Your task to perform on an android device: What's on my calendar tomorrow? Image 0: 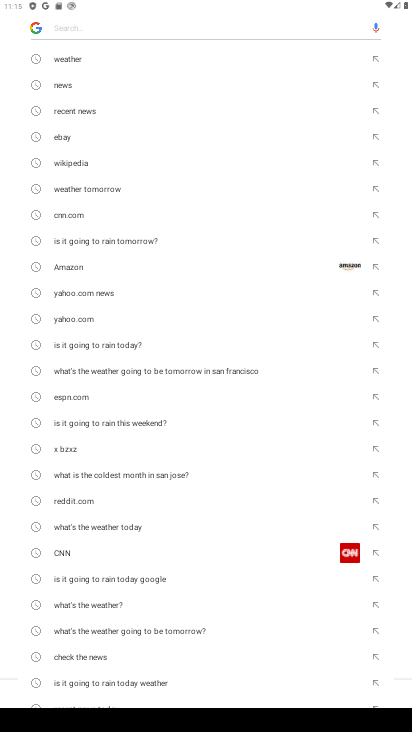
Step 0: press home button
Your task to perform on an android device: What's on my calendar tomorrow? Image 1: 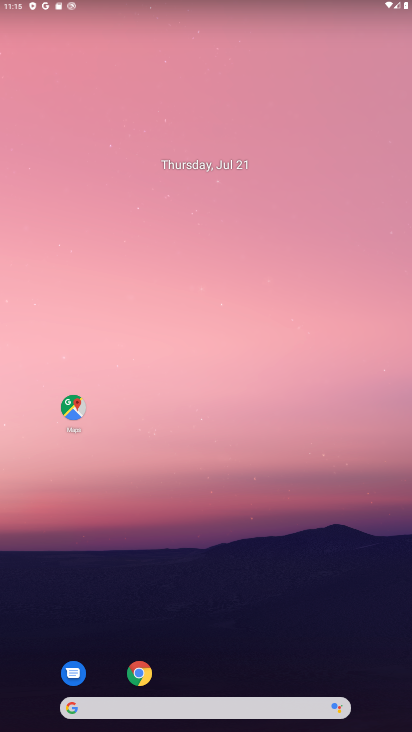
Step 1: drag from (199, 675) to (183, 71)
Your task to perform on an android device: What's on my calendar tomorrow? Image 2: 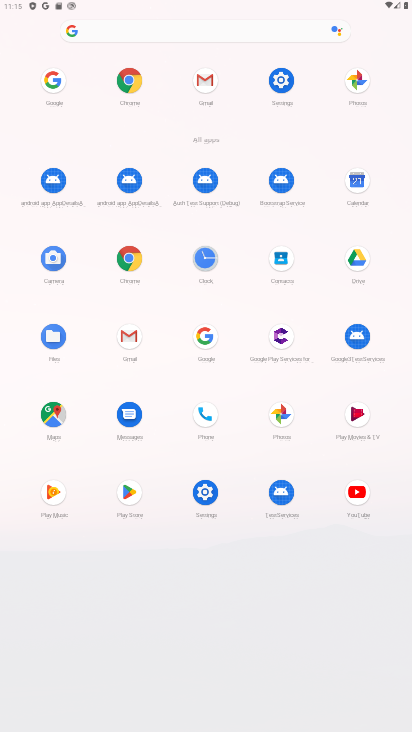
Step 2: click (357, 178)
Your task to perform on an android device: What's on my calendar tomorrow? Image 3: 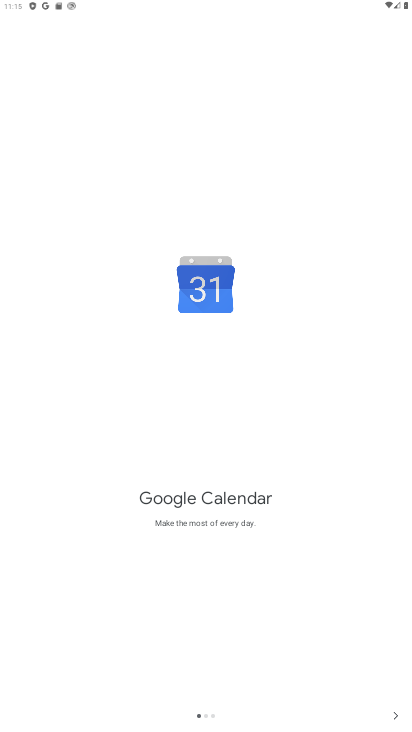
Step 3: click (393, 711)
Your task to perform on an android device: What's on my calendar tomorrow? Image 4: 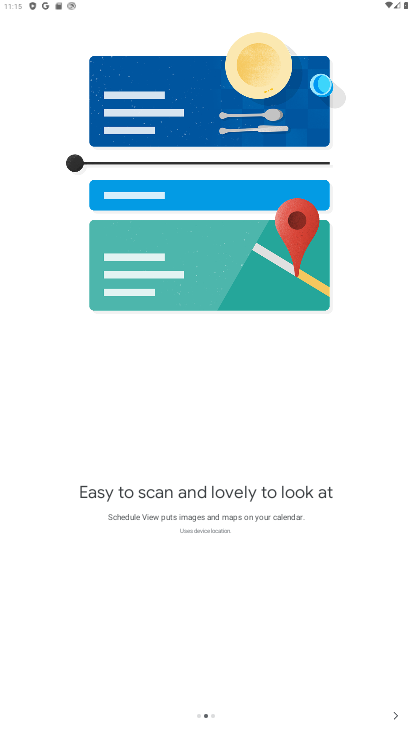
Step 4: click (393, 711)
Your task to perform on an android device: What's on my calendar tomorrow? Image 5: 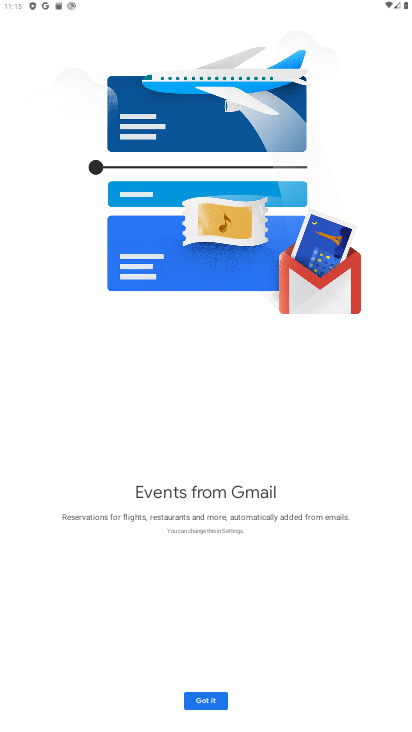
Step 5: click (203, 697)
Your task to perform on an android device: What's on my calendar tomorrow? Image 6: 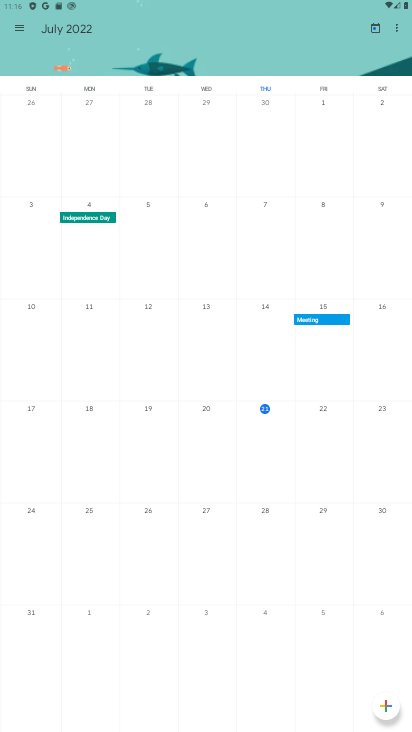
Step 6: click (24, 27)
Your task to perform on an android device: What's on my calendar tomorrow? Image 7: 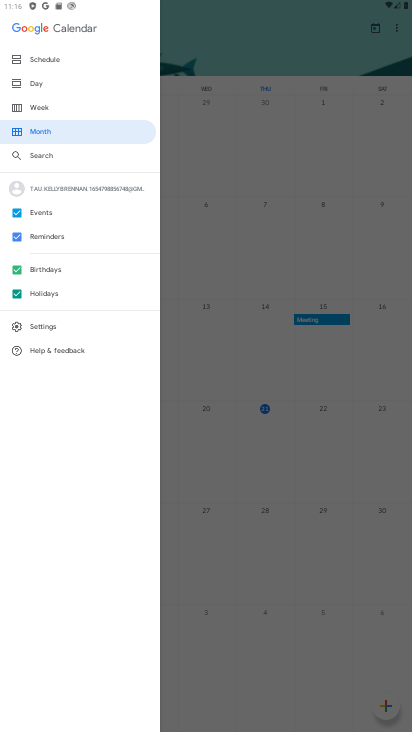
Step 7: click (39, 82)
Your task to perform on an android device: What's on my calendar tomorrow? Image 8: 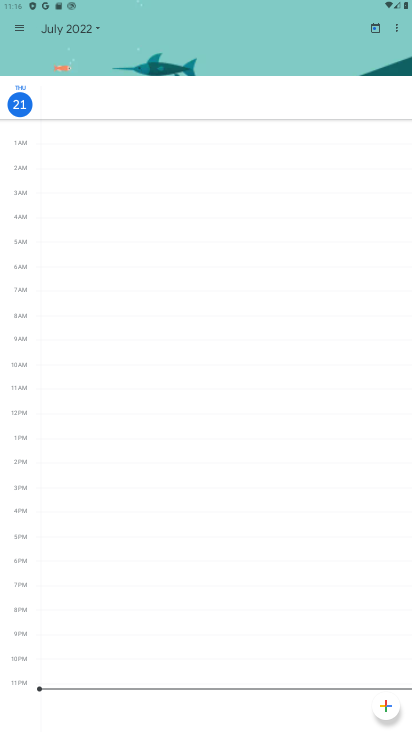
Step 8: click (94, 32)
Your task to perform on an android device: What's on my calendar tomorrow? Image 9: 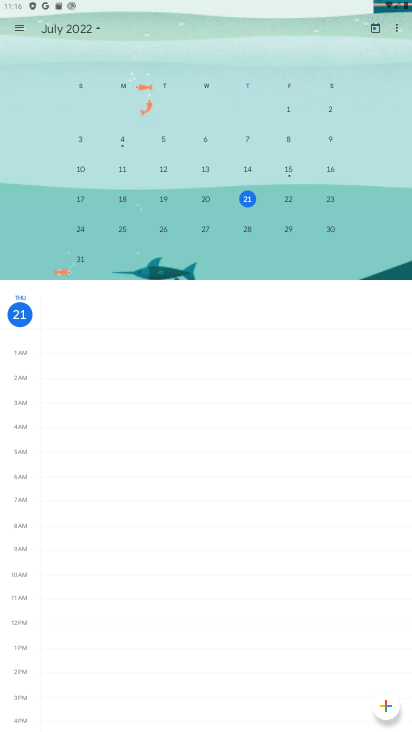
Step 9: click (287, 196)
Your task to perform on an android device: What's on my calendar tomorrow? Image 10: 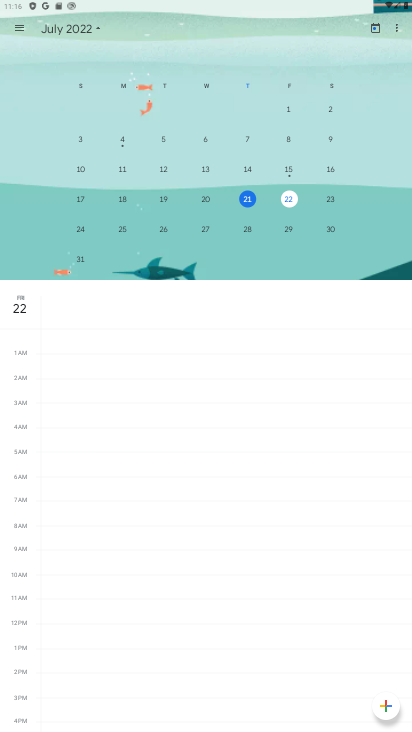
Step 10: click (22, 302)
Your task to perform on an android device: What's on my calendar tomorrow? Image 11: 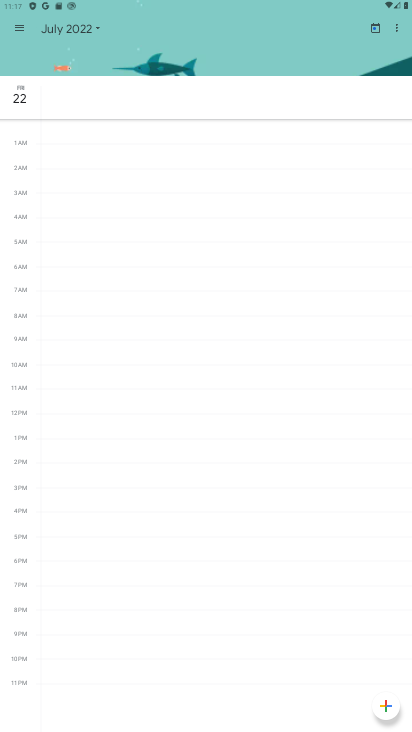
Step 11: task complete